Your task to perform on an android device: Open the phone app and click the voicemail tab. Image 0: 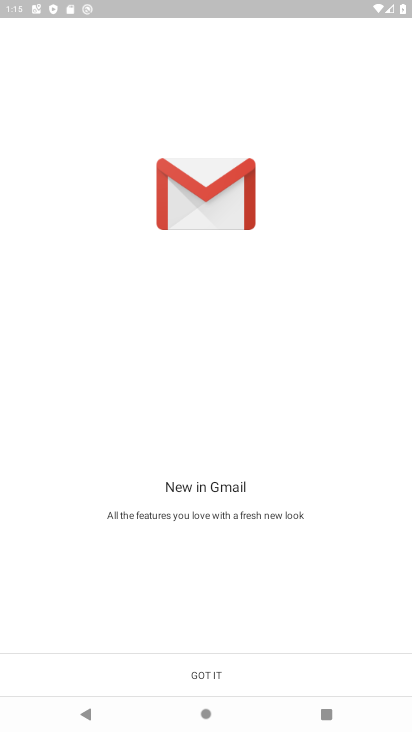
Step 0: press home button
Your task to perform on an android device: Open the phone app and click the voicemail tab. Image 1: 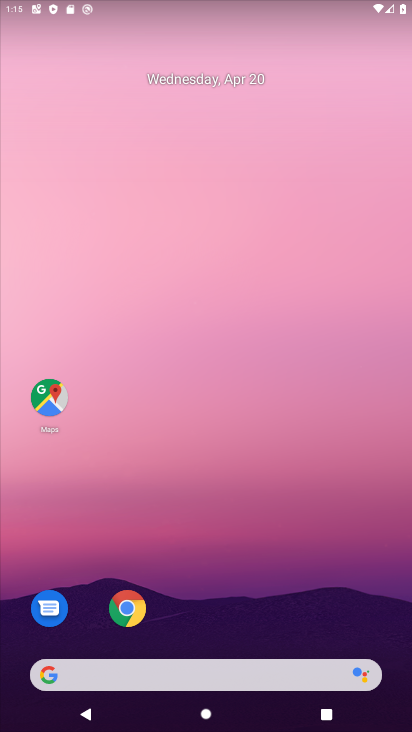
Step 1: drag from (211, 726) to (198, 173)
Your task to perform on an android device: Open the phone app and click the voicemail tab. Image 2: 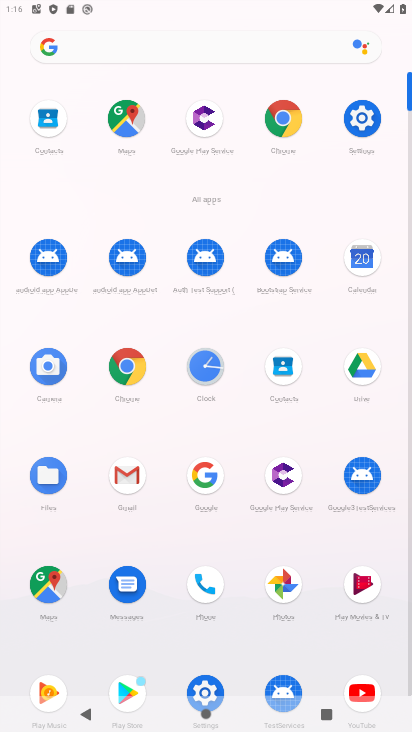
Step 2: click (207, 583)
Your task to perform on an android device: Open the phone app and click the voicemail tab. Image 3: 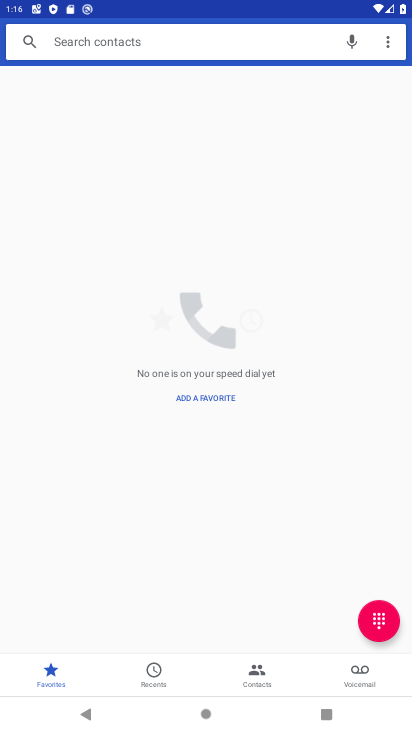
Step 3: click (361, 674)
Your task to perform on an android device: Open the phone app and click the voicemail tab. Image 4: 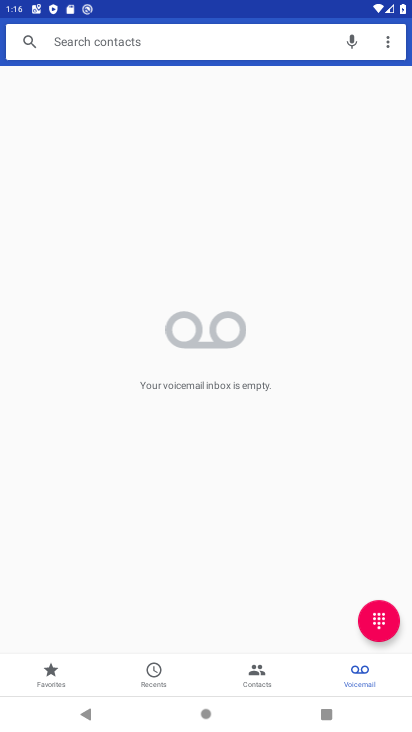
Step 4: task complete